Your task to perform on an android device: What's on my calendar tomorrow? Image 0: 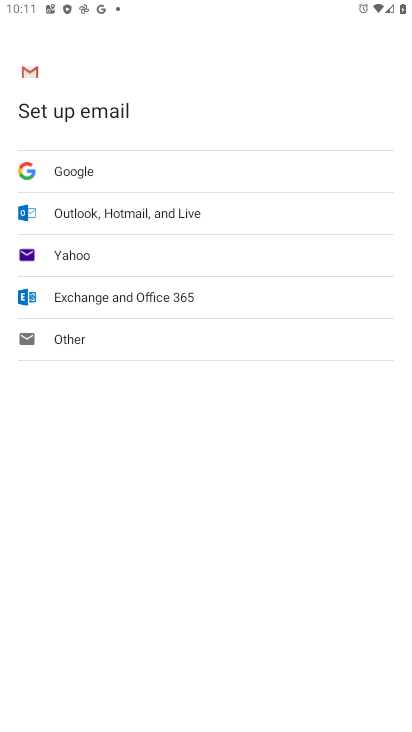
Step 0: press home button
Your task to perform on an android device: What's on my calendar tomorrow? Image 1: 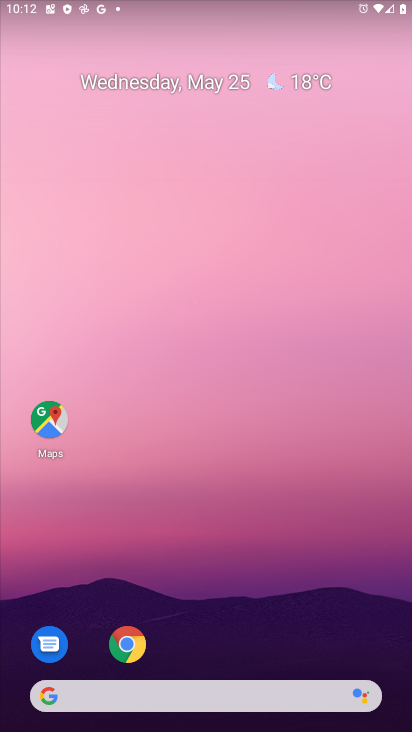
Step 1: drag from (212, 660) to (210, 13)
Your task to perform on an android device: What's on my calendar tomorrow? Image 2: 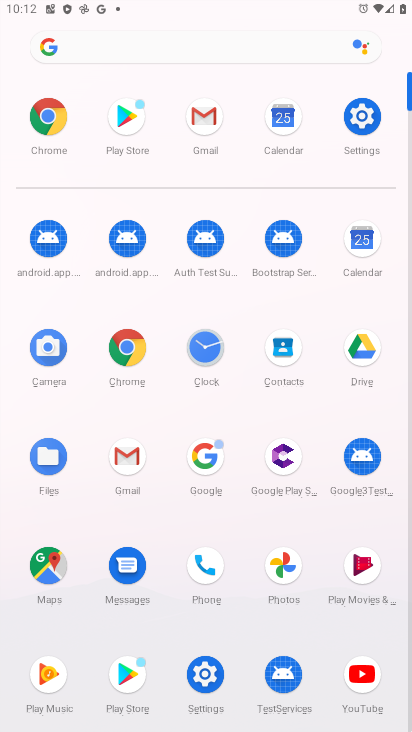
Step 2: click (283, 113)
Your task to perform on an android device: What's on my calendar tomorrow? Image 3: 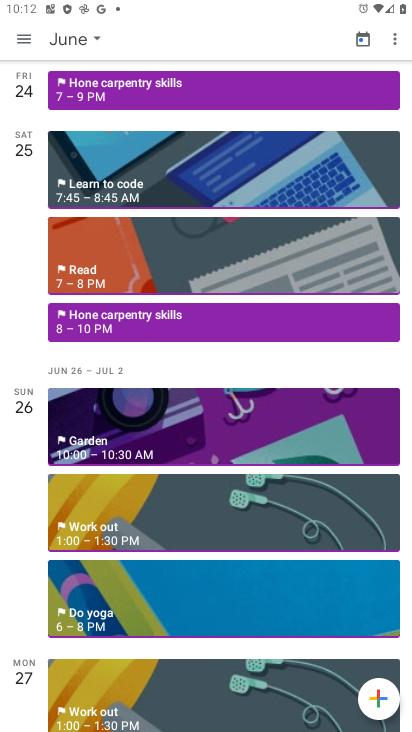
Step 3: click (93, 41)
Your task to perform on an android device: What's on my calendar tomorrow? Image 4: 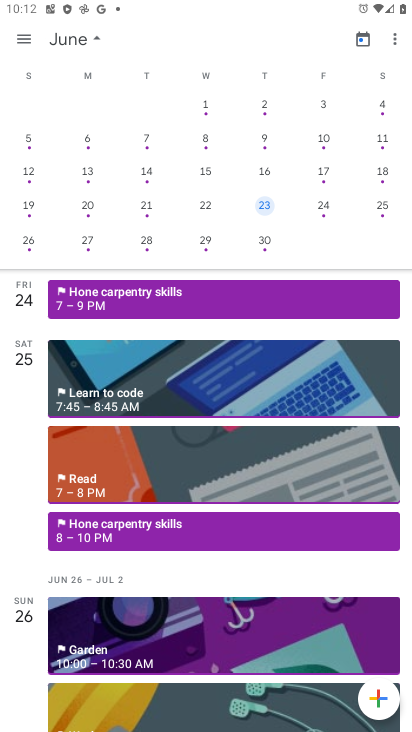
Step 4: drag from (44, 181) to (355, 152)
Your task to perform on an android device: What's on my calendar tomorrow? Image 5: 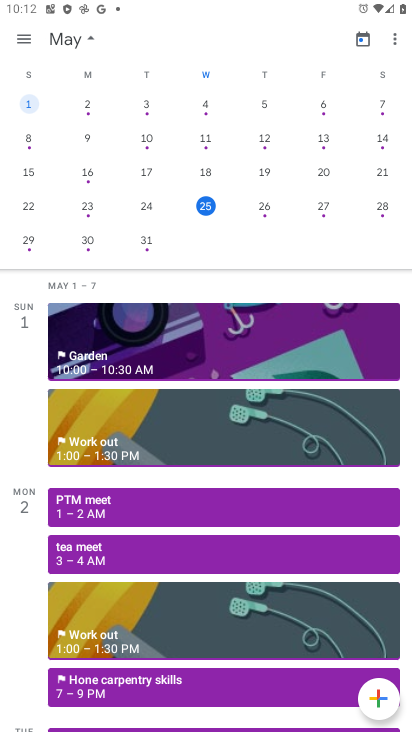
Step 5: click (271, 203)
Your task to perform on an android device: What's on my calendar tomorrow? Image 6: 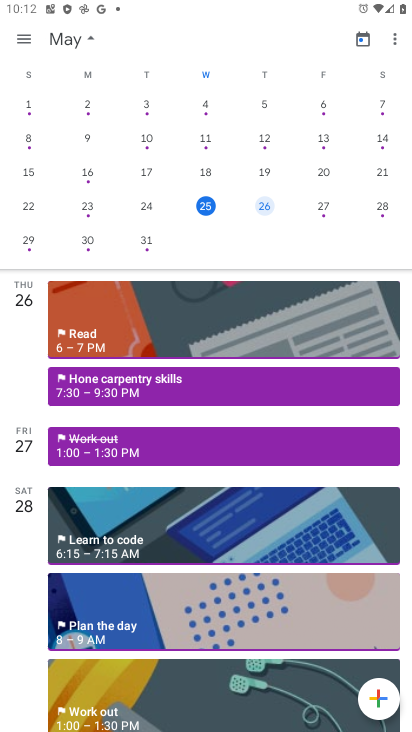
Step 6: click (87, 33)
Your task to perform on an android device: What's on my calendar tomorrow? Image 7: 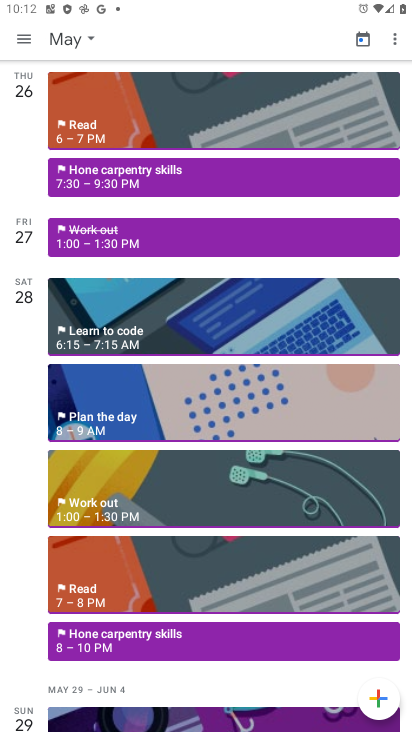
Step 7: click (33, 91)
Your task to perform on an android device: What's on my calendar tomorrow? Image 8: 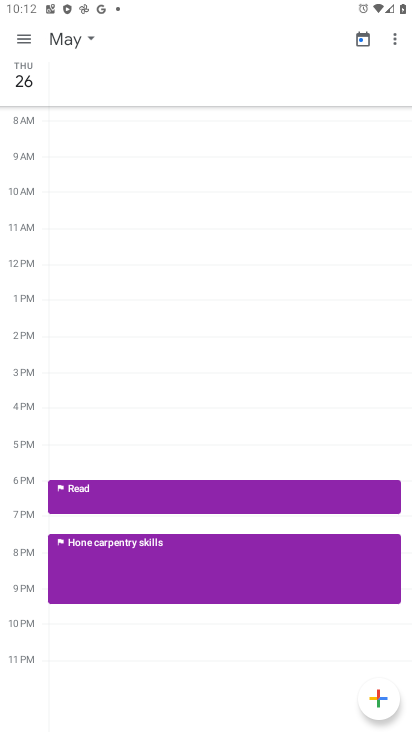
Step 8: task complete